Your task to perform on an android device: add a contact in the contacts app Image 0: 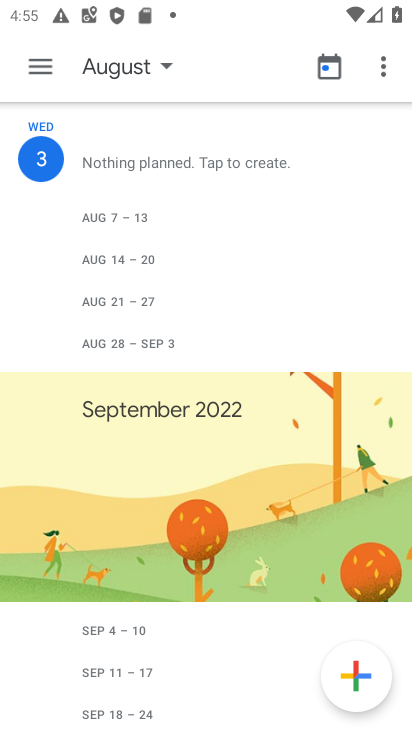
Step 0: press home button
Your task to perform on an android device: add a contact in the contacts app Image 1: 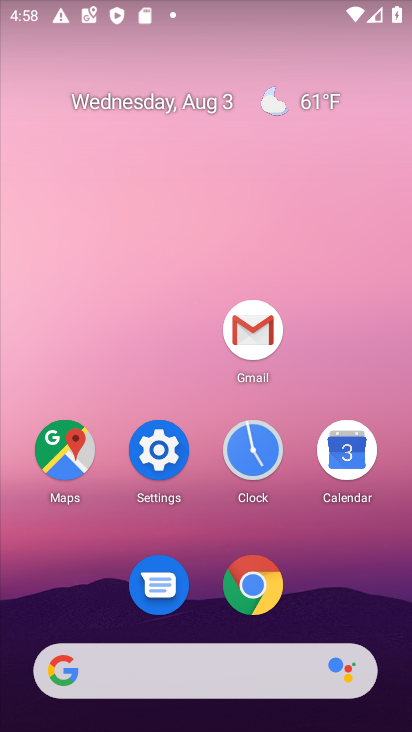
Step 1: drag from (386, 693) to (297, 83)
Your task to perform on an android device: add a contact in the contacts app Image 2: 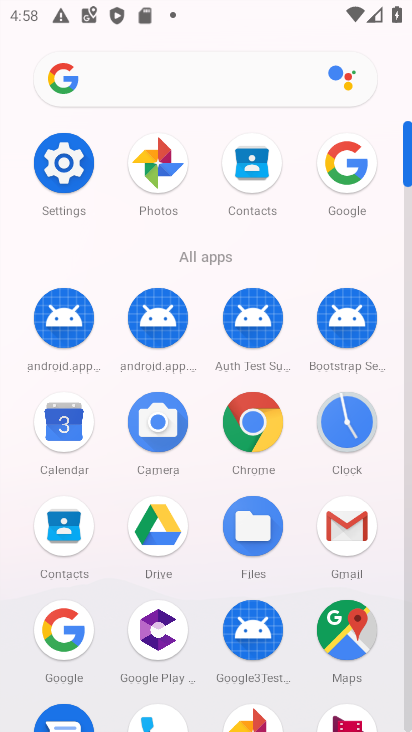
Step 2: drag from (194, 615) to (172, 301)
Your task to perform on an android device: add a contact in the contacts app Image 3: 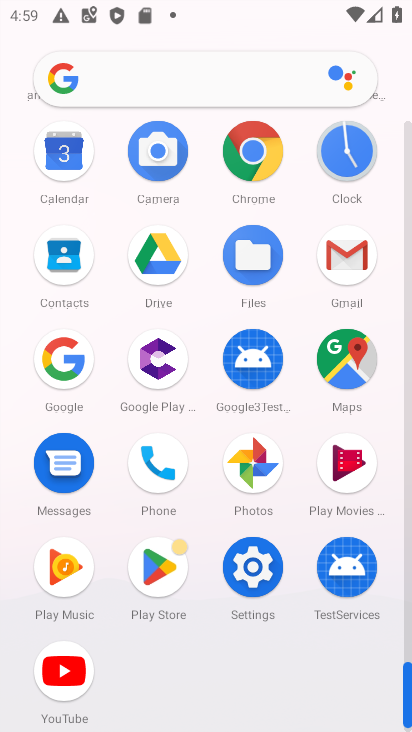
Step 3: click (68, 265)
Your task to perform on an android device: add a contact in the contacts app Image 4: 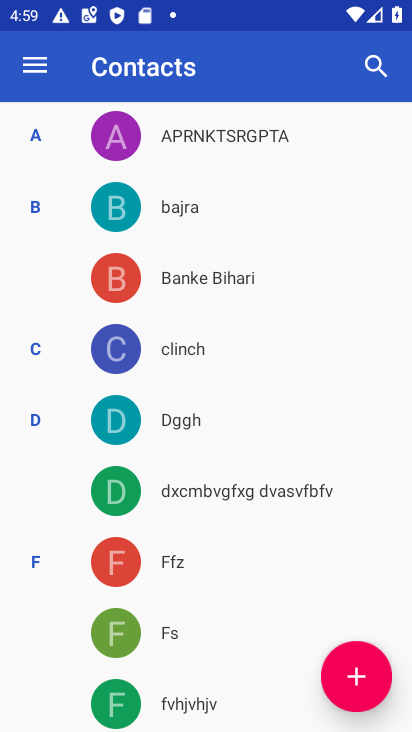
Step 4: click (338, 670)
Your task to perform on an android device: add a contact in the contacts app Image 5: 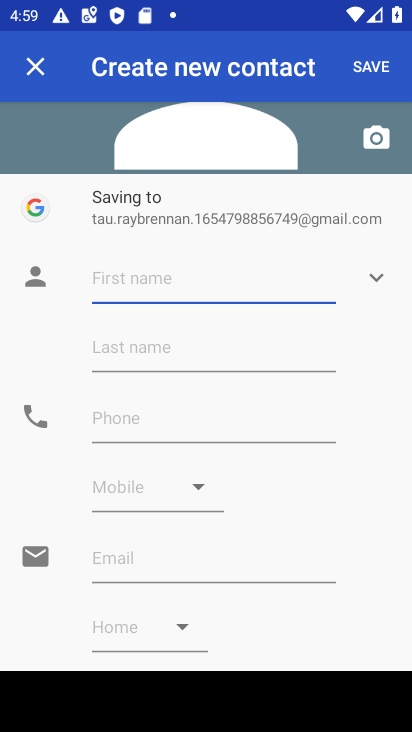
Step 5: type "ugvhvhctdch"
Your task to perform on an android device: add a contact in the contacts app Image 6: 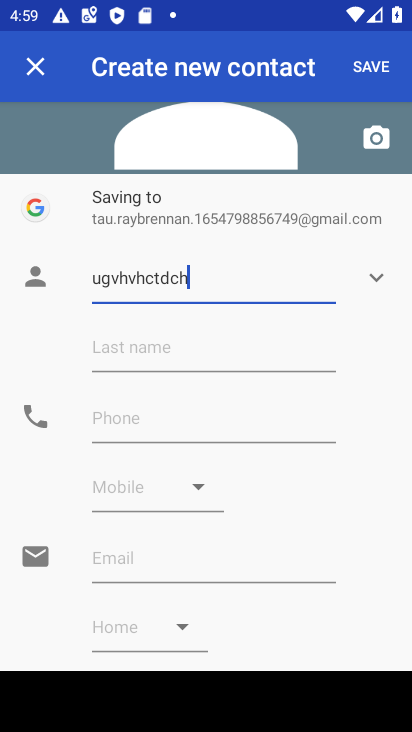
Step 6: click (132, 349)
Your task to perform on an android device: add a contact in the contacts app Image 7: 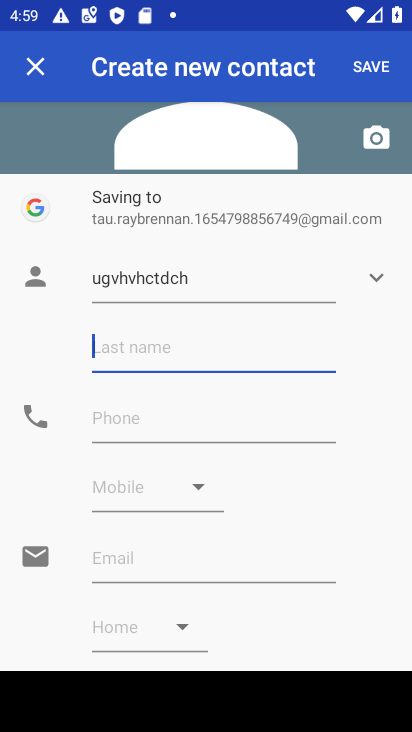
Step 7: type "ftchvfxjkh"
Your task to perform on an android device: add a contact in the contacts app Image 8: 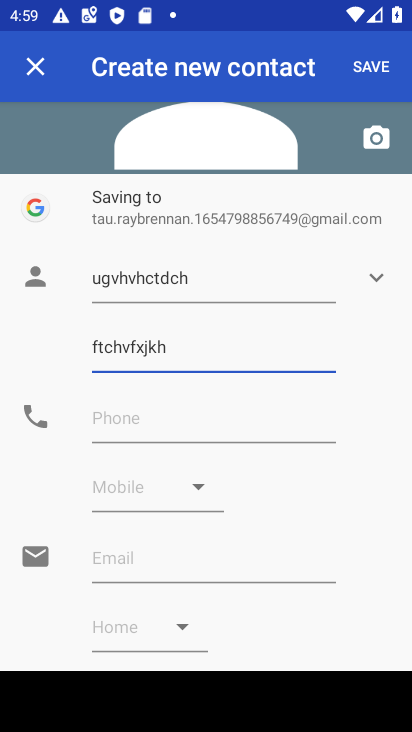
Step 8: click (169, 428)
Your task to perform on an android device: add a contact in the contacts app Image 9: 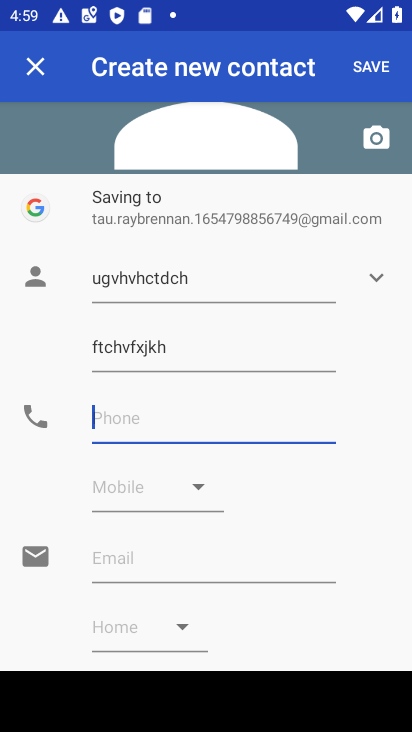
Step 9: type "45765644545445"
Your task to perform on an android device: add a contact in the contacts app Image 10: 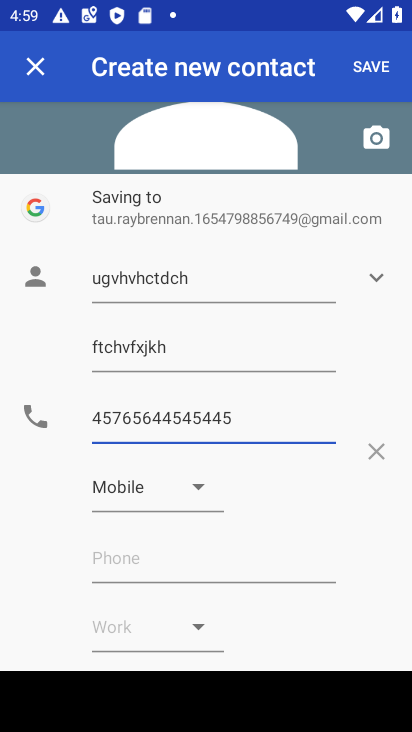
Step 10: click (381, 60)
Your task to perform on an android device: add a contact in the contacts app Image 11: 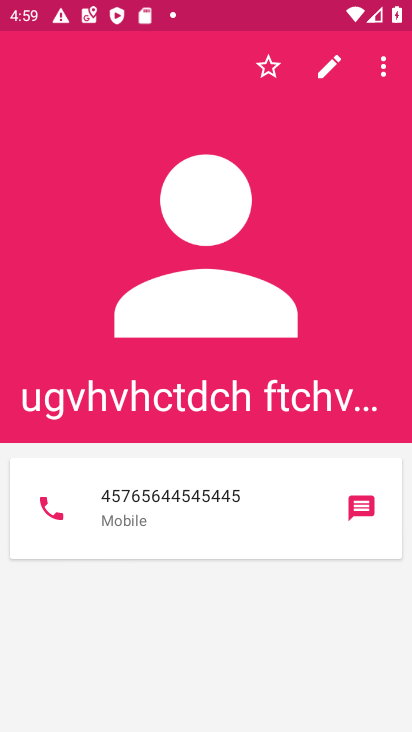
Step 11: task complete